Your task to perform on an android device: change notifications settings Image 0: 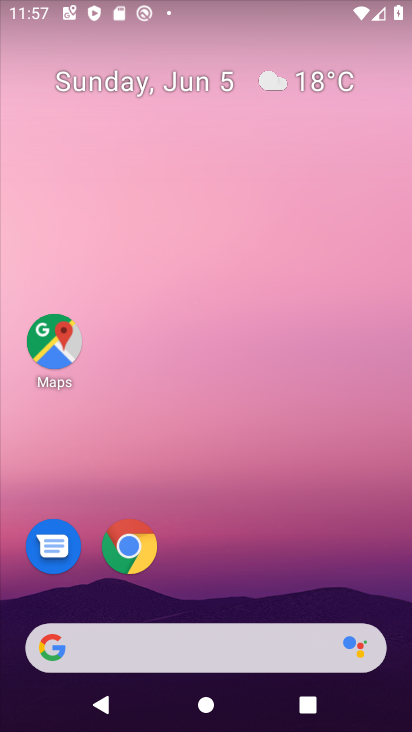
Step 0: drag from (238, 514) to (265, 154)
Your task to perform on an android device: change notifications settings Image 1: 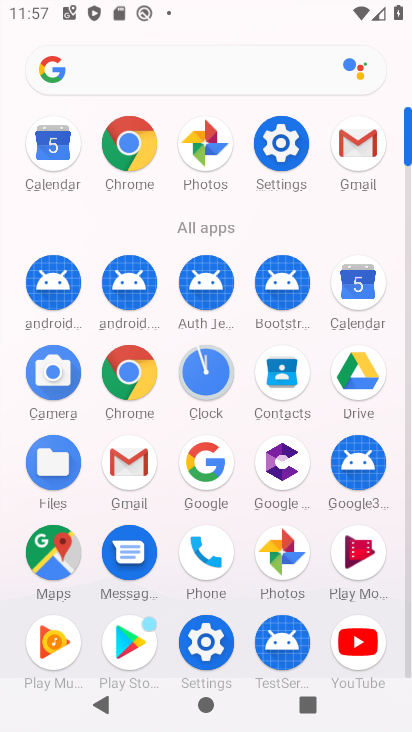
Step 1: click (270, 145)
Your task to perform on an android device: change notifications settings Image 2: 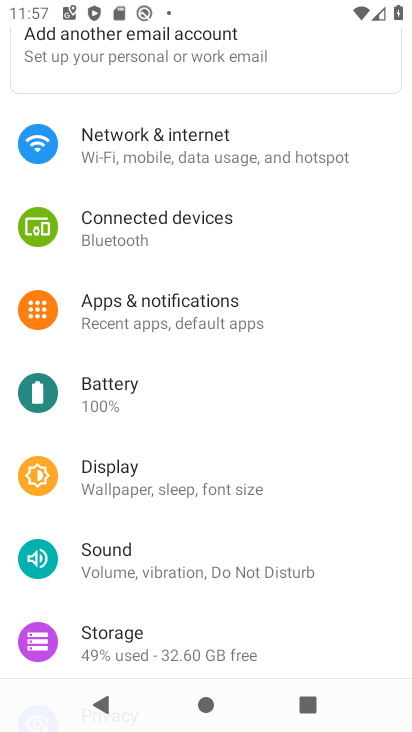
Step 2: click (197, 309)
Your task to perform on an android device: change notifications settings Image 3: 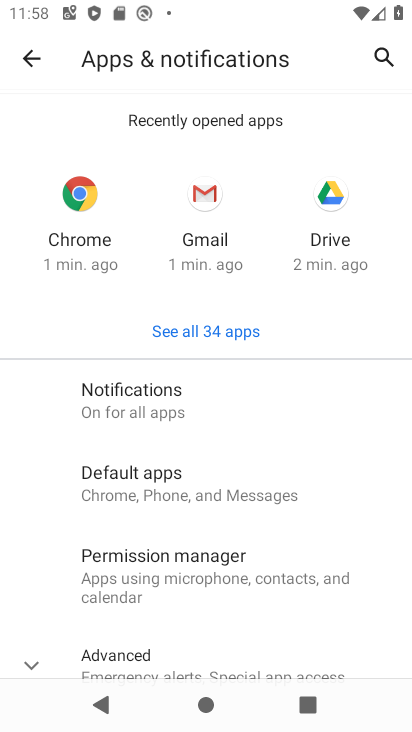
Step 3: click (192, 398)
Your task to perform on an android device: change notifications settings Image 4: 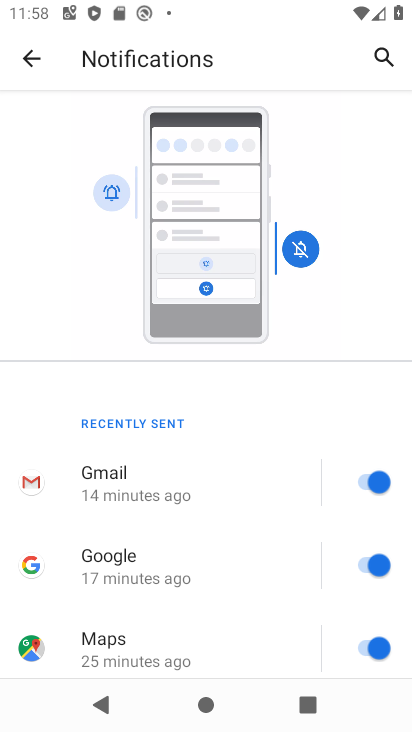
Step 4: drag from (289, 258) to (335, 13)
Your task to perform on an android device: change notifications settings Image 5: 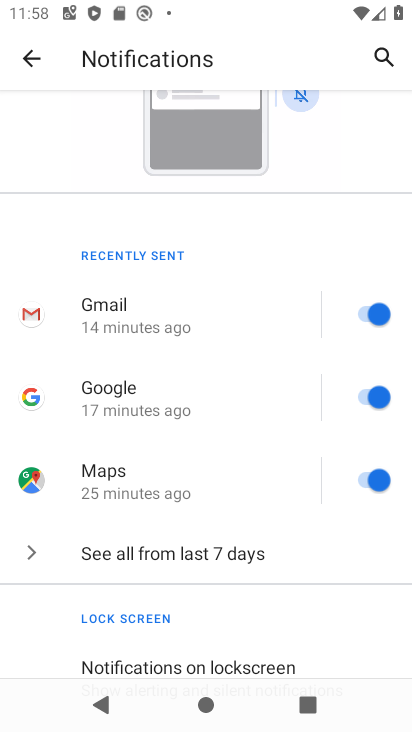
Step 5: click (99, 391)
Your task to perform on an android device: change notifications settings Image 6: 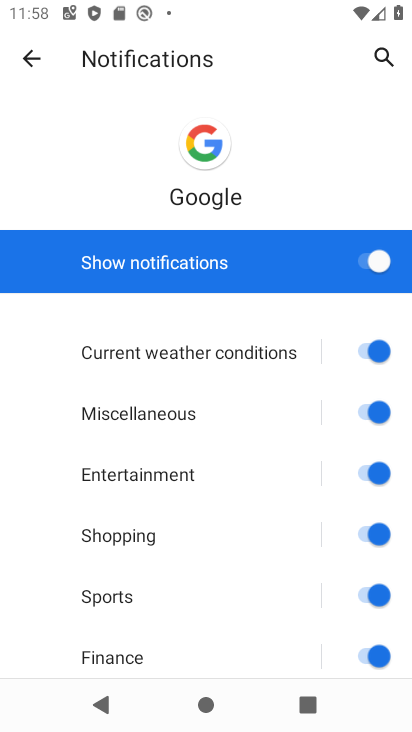
Step 6: click (365, 597)
Your task to perform on an android device: change notifications settings Image 7: 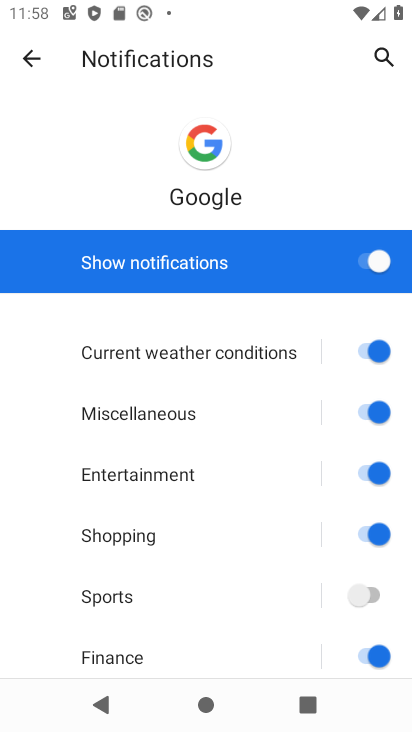
Step 7: task complete